Your task to perform on an android device: toggle pop-ups in chrome Image 0: 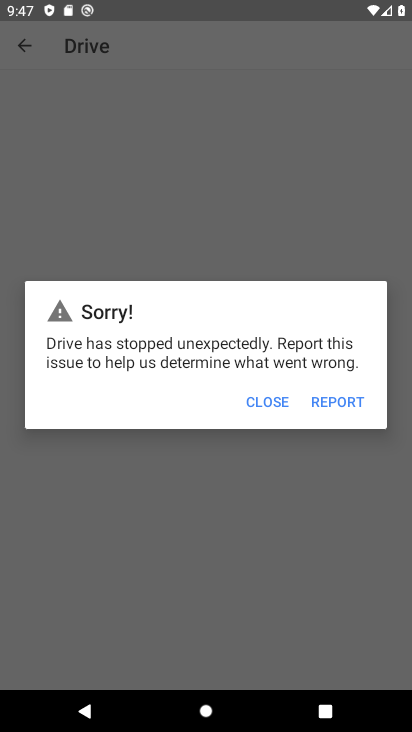
Step 0: press home button
Your task to perform on an android device: toggle pop-ups in chrome Image 1: 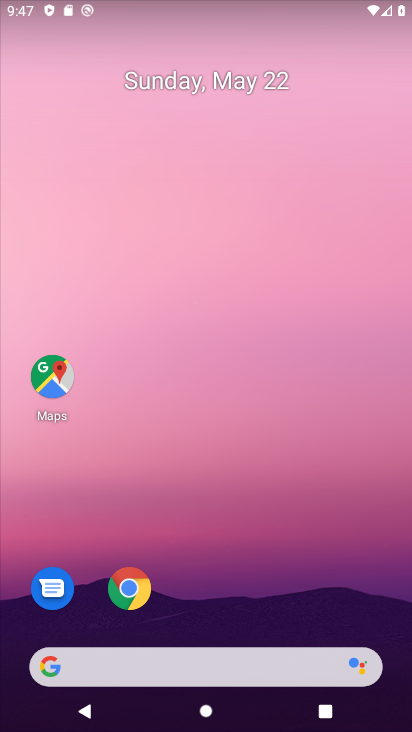
Step 1: click (143, 610)
Your task to perform on an android device: toggle pop-ups in chrome Image 2: 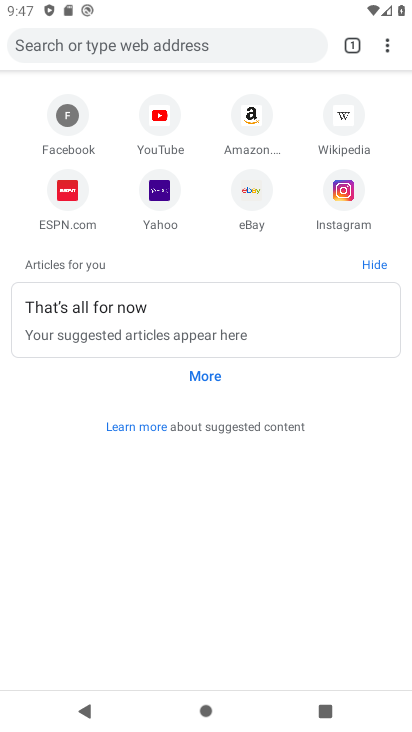
Step 2: click (379, 51)
Your task to perform on an android device: toggle pop-ups in chrome Image 3: 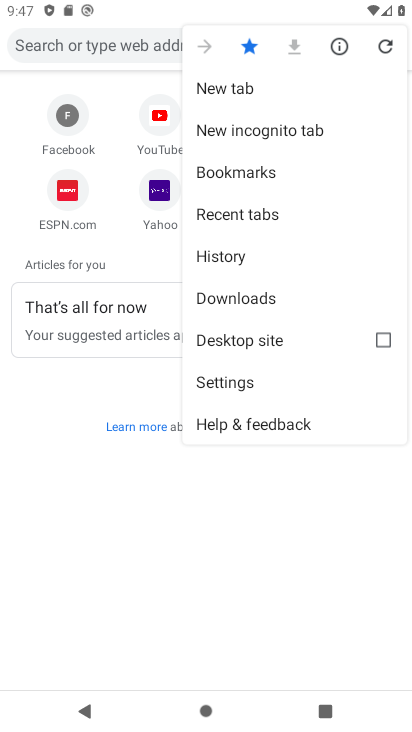
Step 3: click (245, 393)
Your task to perform on an android device: toggle pop-ups in chrome Image 4: 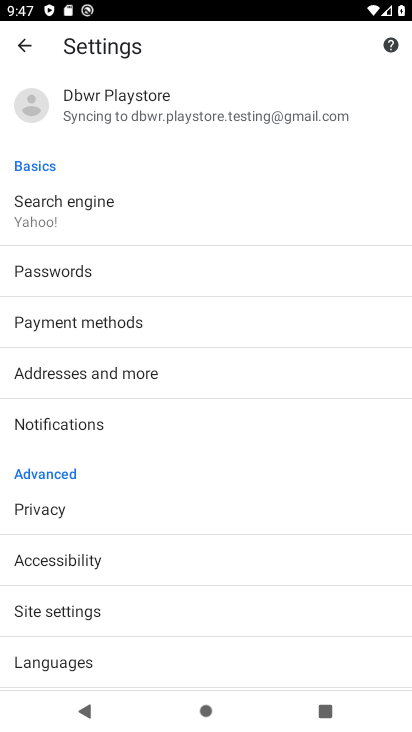
Step 4: click (238, 619)
Your task to perform on an android device: toggle pop-ups in chrome Image 5: 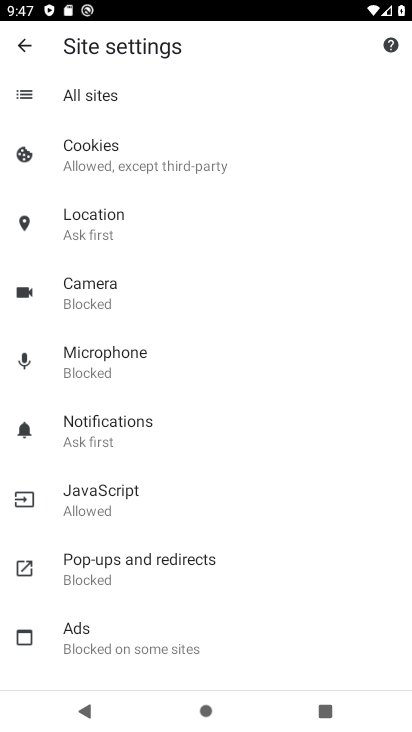
Step 5: click (212, 576)
Your task to perform on an android device: toggle pop-ups in chrome Image 6: 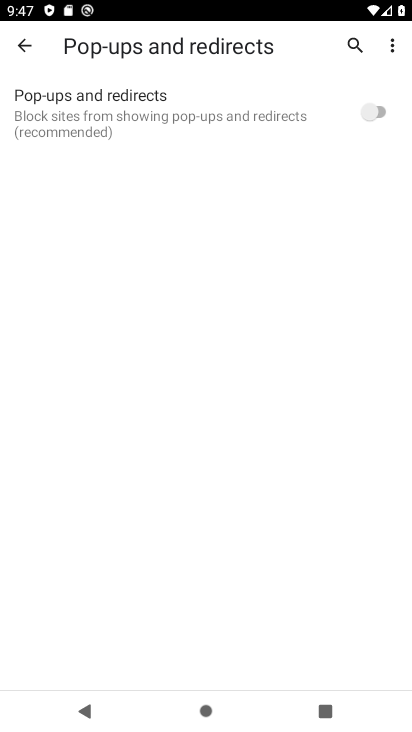
Step 6: click (383, 104)
Your task to perform on an android device: toggle pop-ups in chrome Image 7: 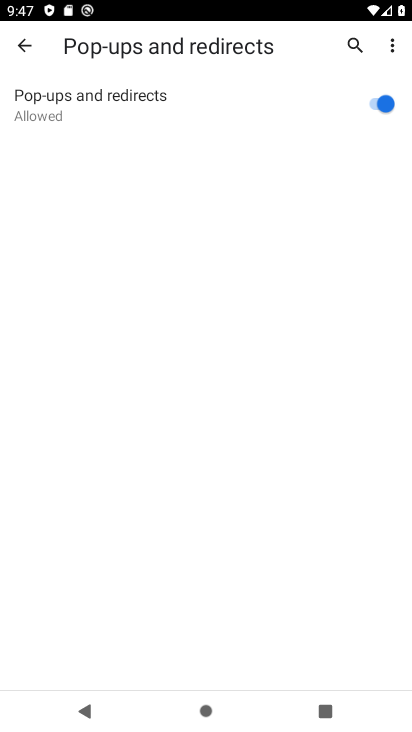
Step 7: task complete